Your task to perform on an android device: Open Google Maps and go to "Timeline" Image 0: 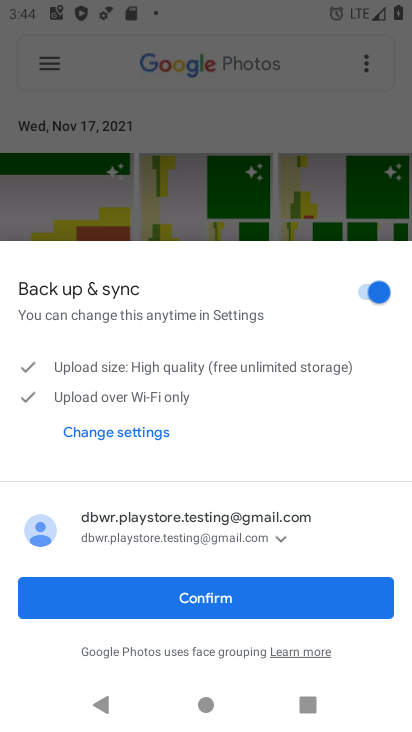
Step 0: press home button
Your task to perform on an android device: Open Google Maps and go to "Timeline" Image 1: 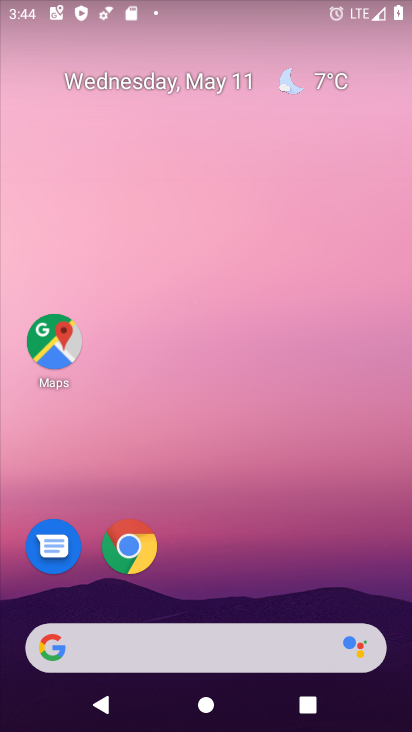
Step 1: drag from (275, 545) to (324, 6)
Your task to perform on an android device: Open Google Maps and go to "Timeline" Image 2: 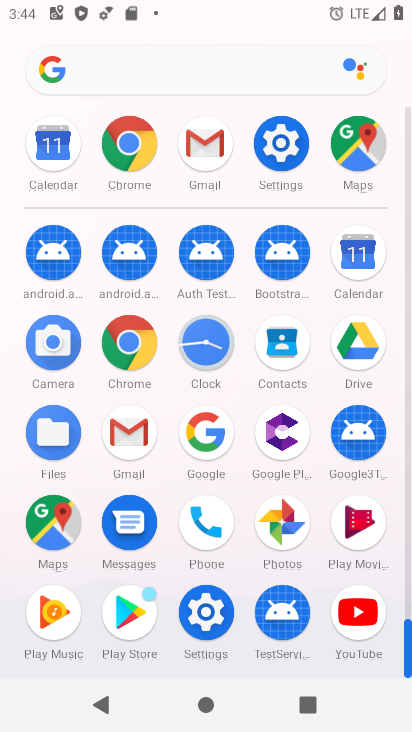
Step 2: click (64, 528)
Your task to perform on an android device: Open Google Maps and go to "Timeline" Image 3: 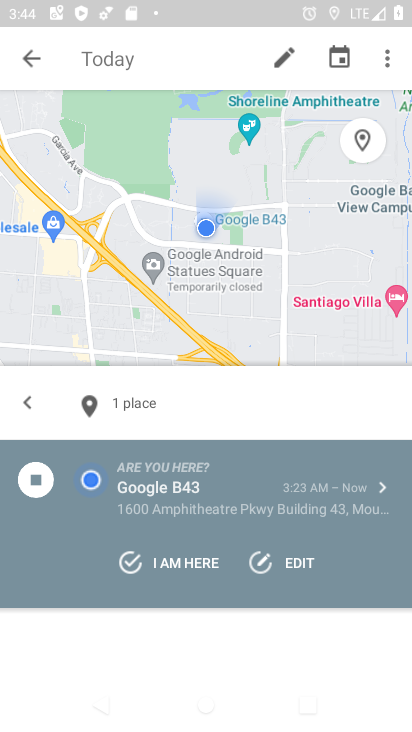
Step 3: press back button
Your task to perform on an android device: Open Google Maps and go to "Timeline" Image 4: 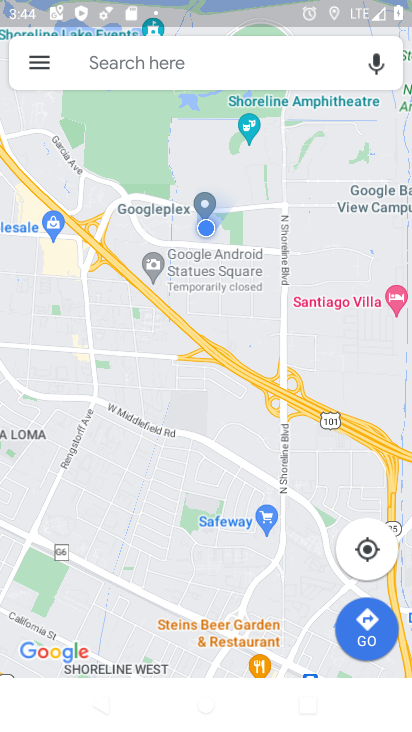
Step 4: click (31, 58)
Your task to perform on an android device: Open Google Maps and go to "Timeline" Image 5: 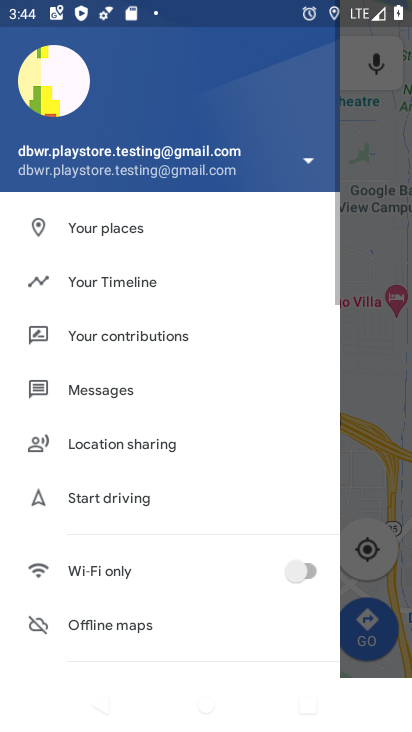
Step 5: click (108, 274)
Your task to perform on an android device: Open Google Maps and go to "Timeline" Image 6: 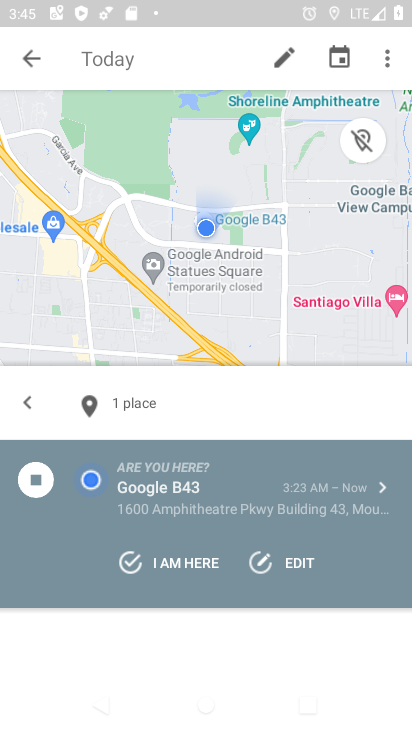
Step 6: task complete